Your task to perform on an android device: turn vacation reply on in the gmail app Image 0: 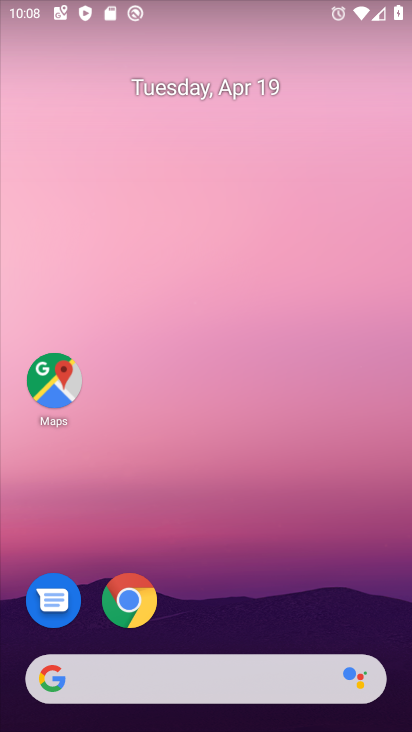
Step 0: drag from (245, 616) to (188, 169)
Your task to perform on an android device: turn vacation reply on in the gmail app Image 1: 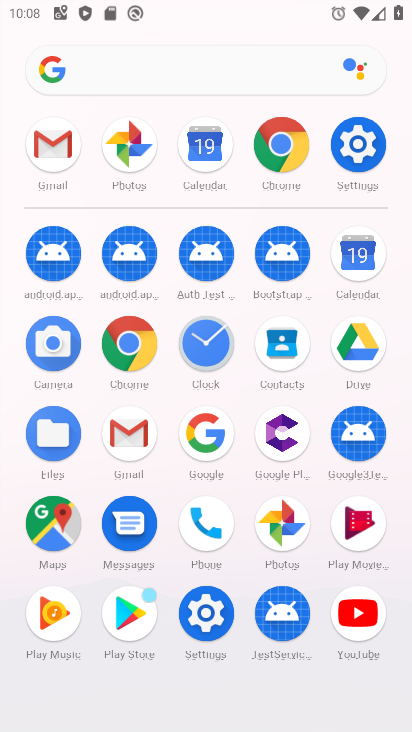
Step 1: click (136, 431)
Your task to perform on an android device: turn vacation reply on in the gmail app Image 2: 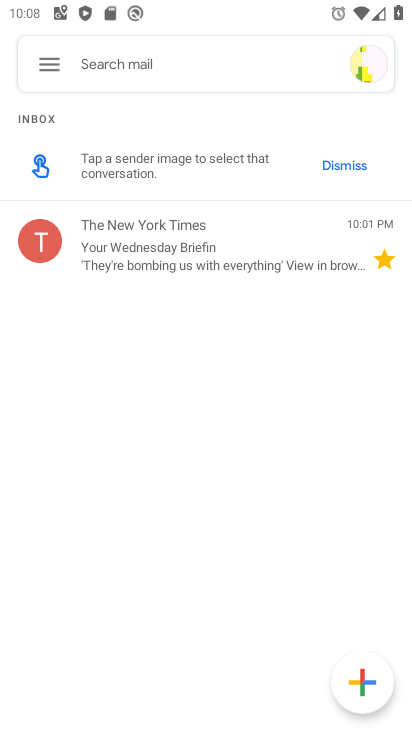
Step 2: click (47, 57)
Your task to perform on an android device: turn vacation reply on in the gmail app Image 3: 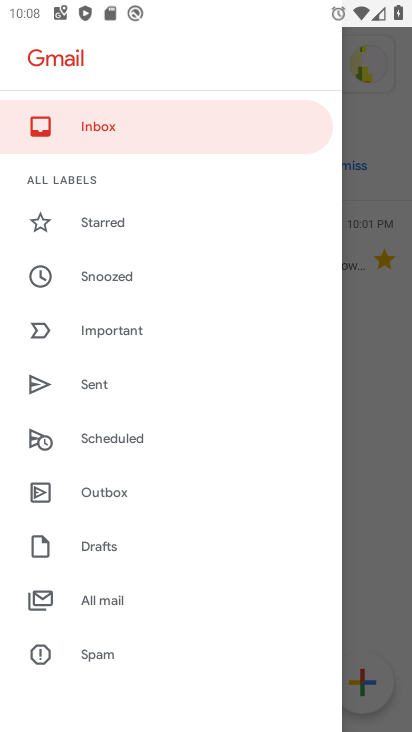
Step 3: drag from (139, 630) to (135, 346)
Your task to perform on an android device: turn vacation reply on in the gmail app Image 4: 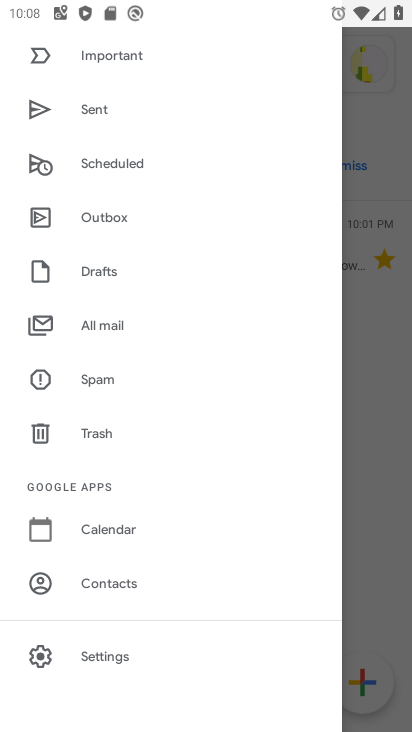
Step 4: click (123, 660)
Your task to perform on an android device: turn vacation reply on in the gmail app Image 5: 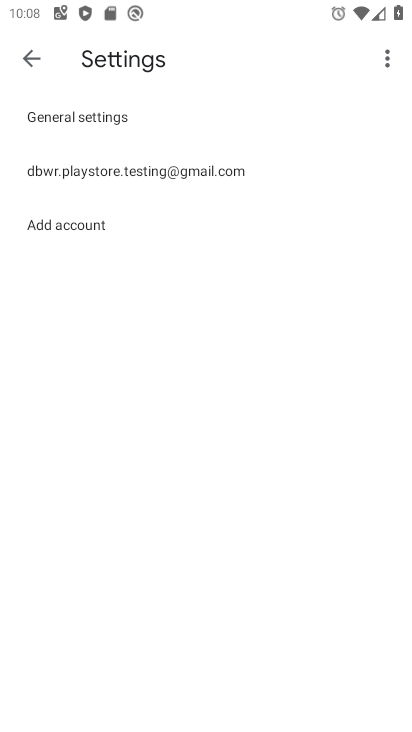
Step 5: click (128, 192)
Your task to perform on an android device: turn vacation reply on in the gmail app Image 6: 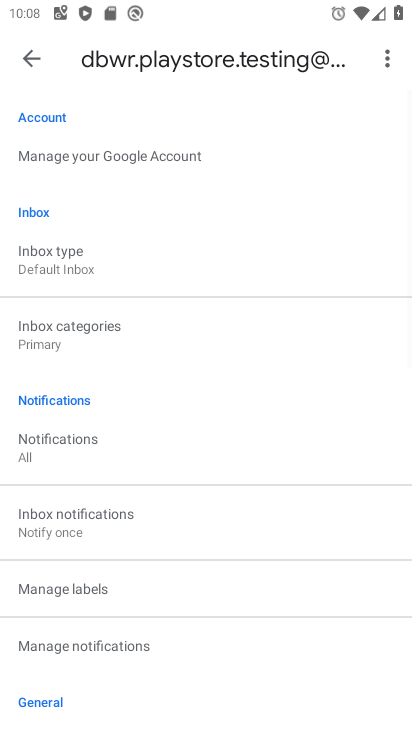
Step 6: drag from (189, 577) to (128, 269)
Your task to perform on an android device: turn vacation reply on in the gmail app Image 7: 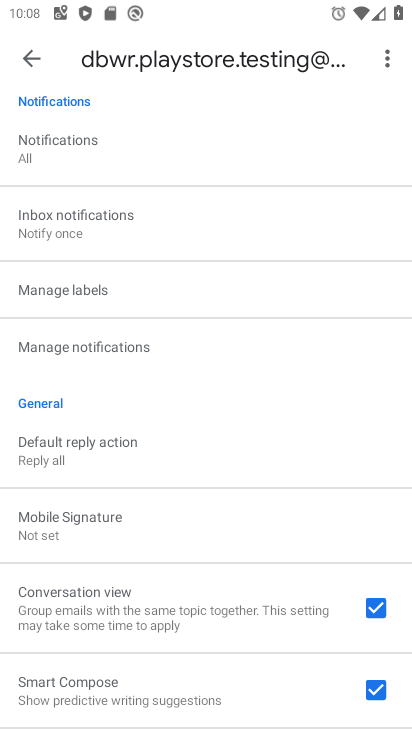
Step 7: drag from (188, 518) to (174, 249)
Your task to perform on an android device: turn vacation reply on in the gmail app Image 8: 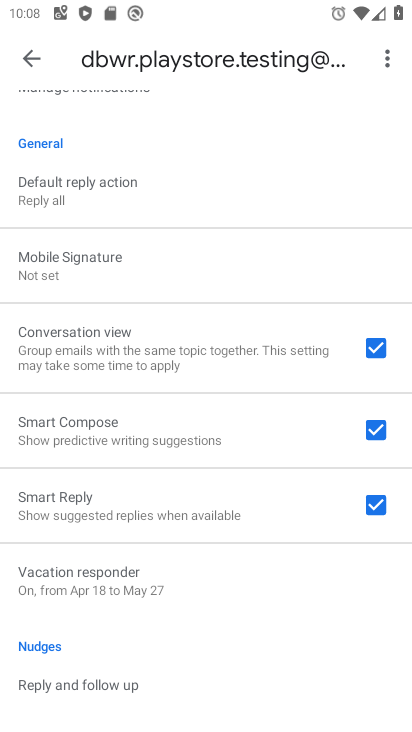
Step 8: click (181, 572)
Your task to perform on an android device: turn vacation reply on in the gmail app Image 9: 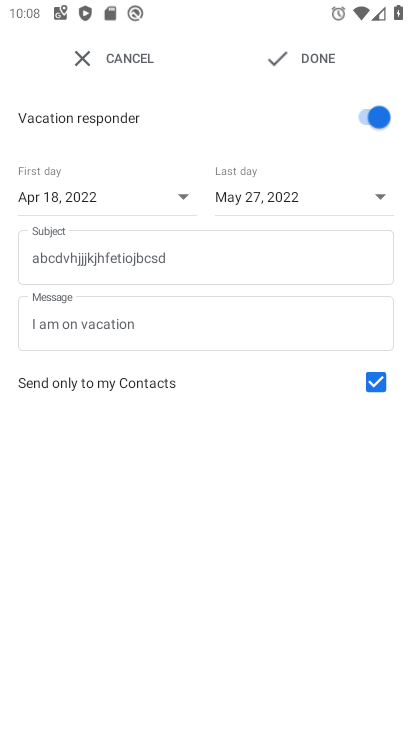
Step 9: task complete